Your task to perform on an android device: Open Google Maps Image 0: 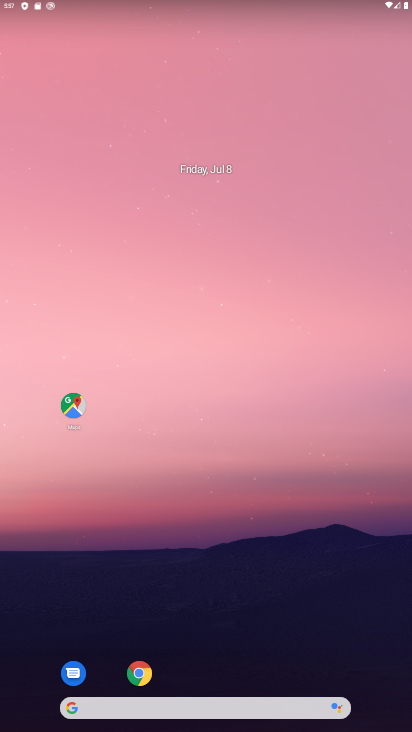
Step 0: press home button
Your task to perform on an android device: Open Google Maps Image 1: 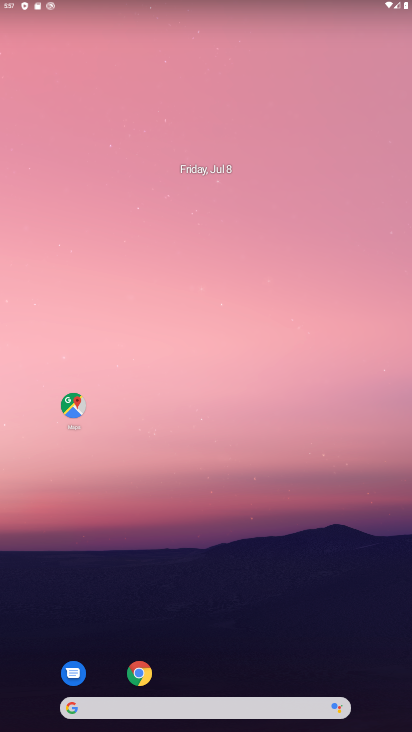
Step 1: click (69, 399)
Your task to perform on an android device: Open Google Maps Image 2: 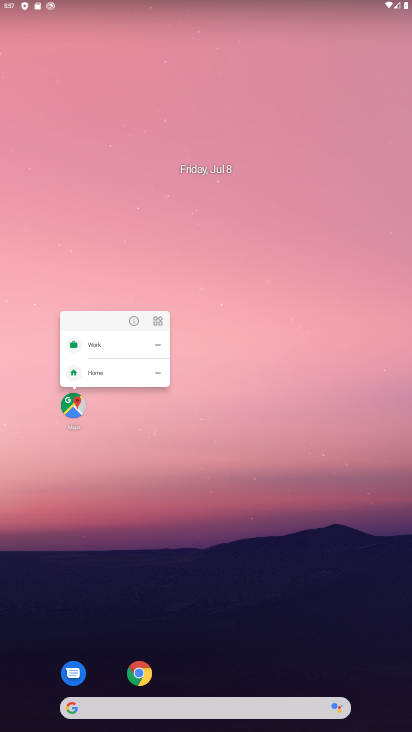
Step 2: click (69, 399)
Your task to perform on an android device: Open Google Maps Image 3: 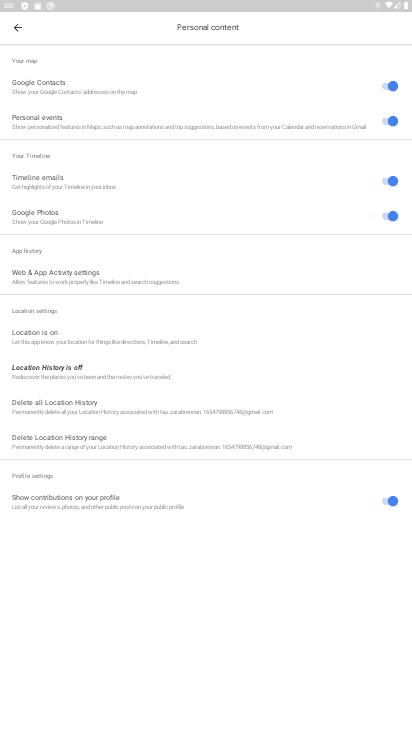
Step 3: task complete